Your task to perform on an android device: Open CNN.com Image 0: 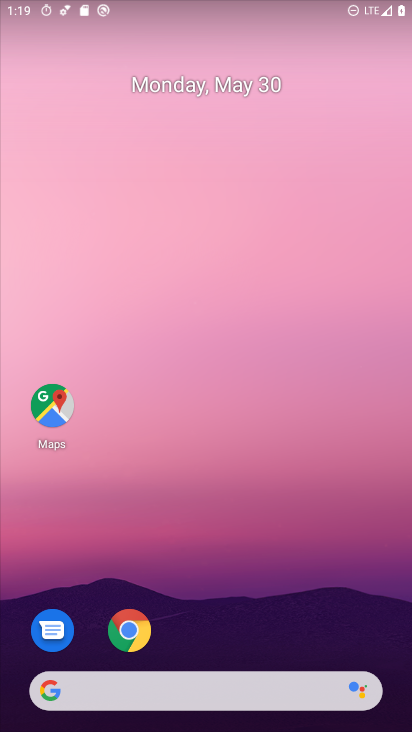
Step 0: press home button
Your task to perform on an android device: Open CNN.com Image 1: 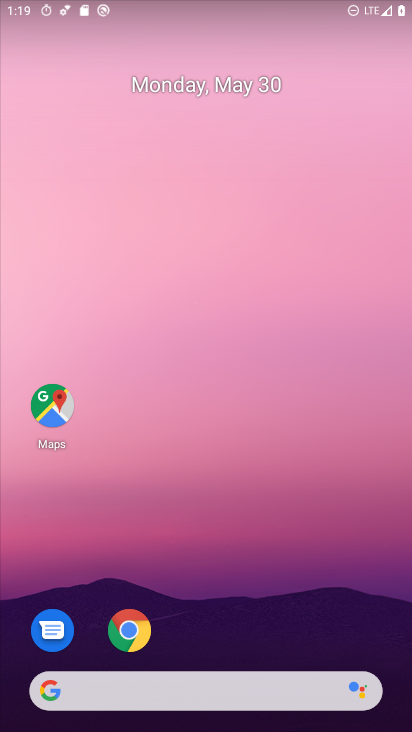
Step 1: drag from (267, 708) to (244, 256)
Your task to perform on an android device: Open CNN.com Image 2: 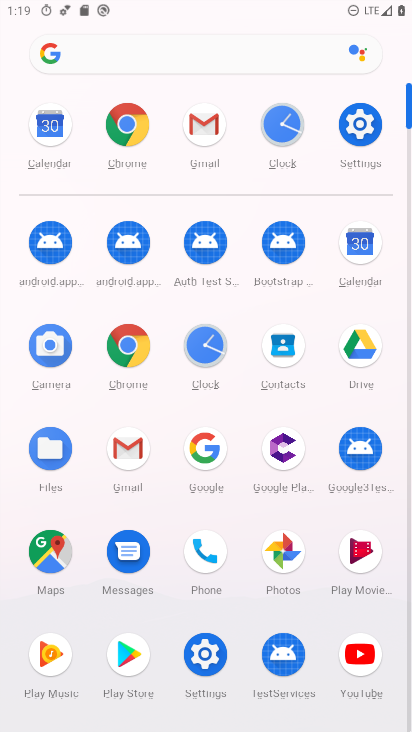
Step 2: click (110, 341)
Your task to perform on an android device: Open CNN.com Image 3: 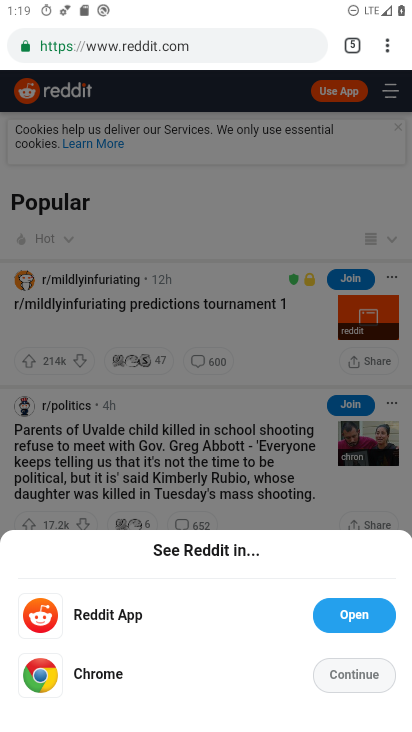
Step 3: click (156, 31)
Your task to perform on an android device: Open CNN.com Image 4: 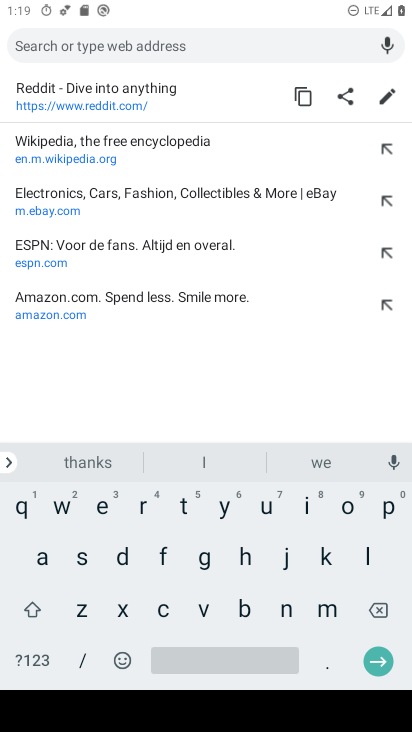
Step 4: click (164, 611)
Your task to perform on an android device: Open CNN.com Image 5: 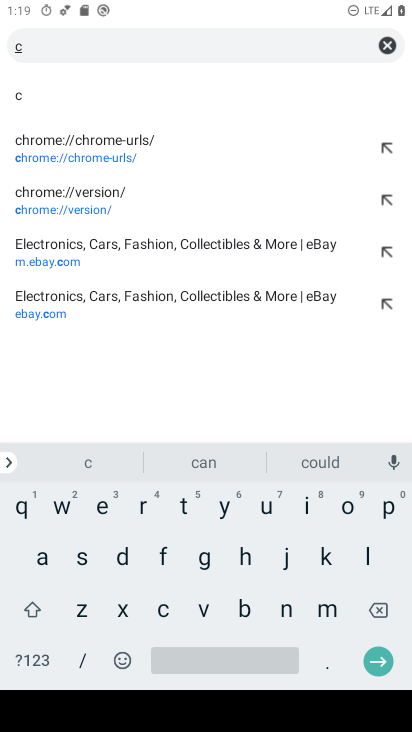
Step 5: click (280, 615)
Your task to perform on an android device: Open CNN.com Image 6: 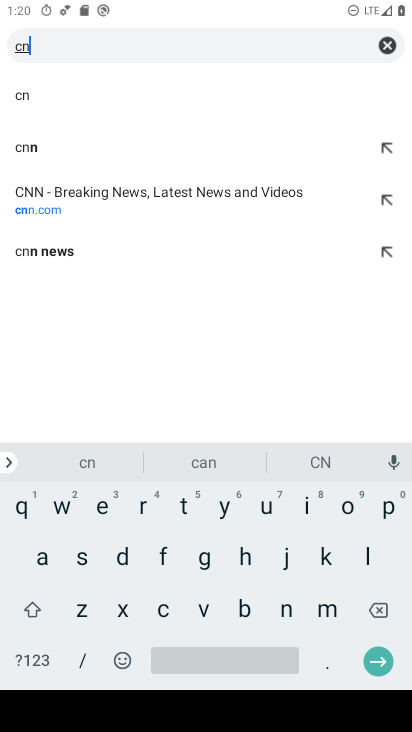
Step 6: click (64, 201)
Your task to perform on an android device: Open CNN.com Image 7: 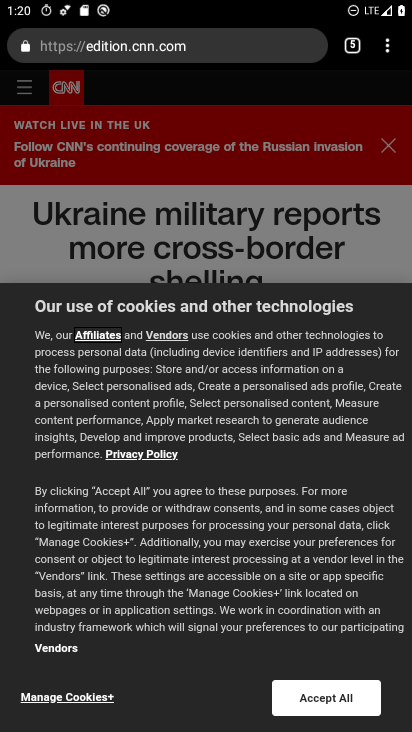
Step 7: task complete